Your task to perform on an android device: What is the recent news? Image 0: 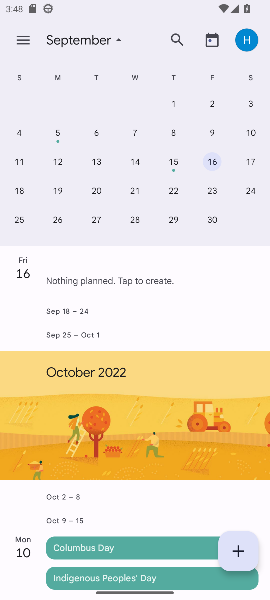
Step 0: press home button
Your task to perform on an android device: What is the recent news? Image 1: 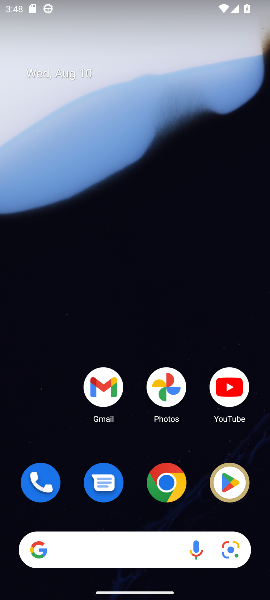
Step 1: drag from (125, 513) to (121, 16)
Your task to perform on an android device: What is the recent news? Image 2: 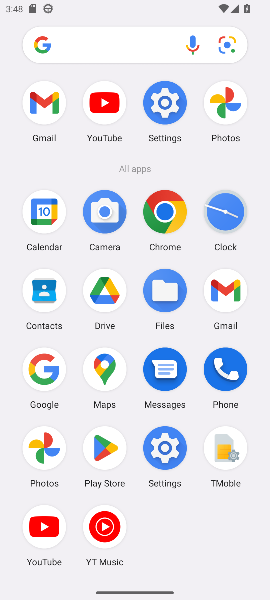
Step 2: click (168, 209)
Your task to perform on an android device: What is the recent news? Image 3: 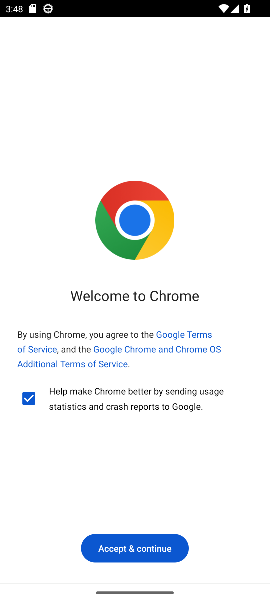
Step 3: click (162, 550)
Your task to perform on an android device: What is the recent news? Image 4: 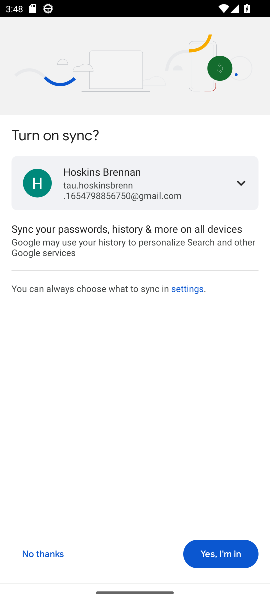
Step 4: click (220, 547)
Your task to perform on an android device: What is the recent news? Image 5: 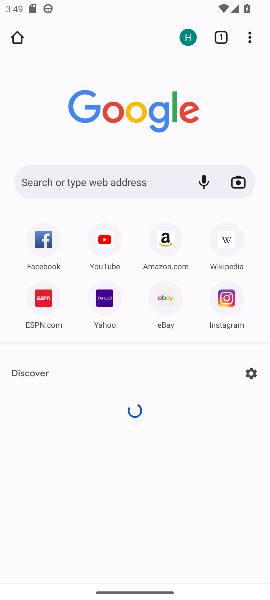
Step 5: click (84, 187)
Your task to perform on an android device: What is the recent news? Image 6: 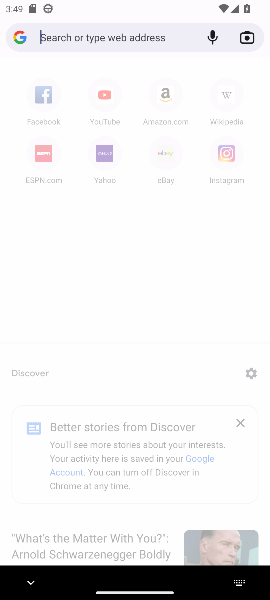
Step 6: type "What is the recent news?"
Your task to perform on an android device: What is the recent news? Image 7: 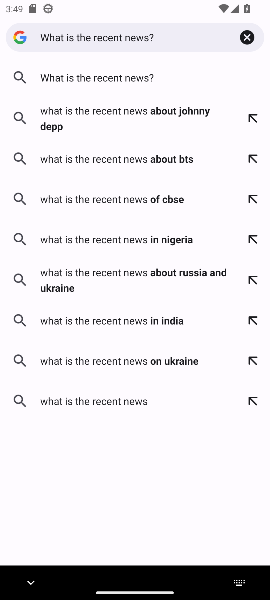
Step 7: click (73, 77)
Your task to perform on an android device: What is the recent news? Image 8: 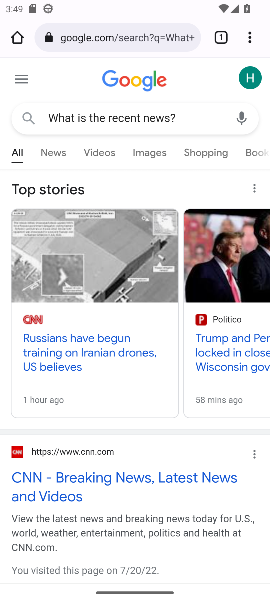
Step 8: click (48, 154)
Your task to perform on an android device: What is the recent news? Image 9: 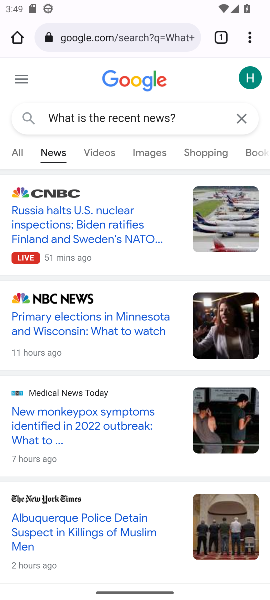
Step 9: task complete